Your task to perform on an android device: Go to Wikipedia Image 0: 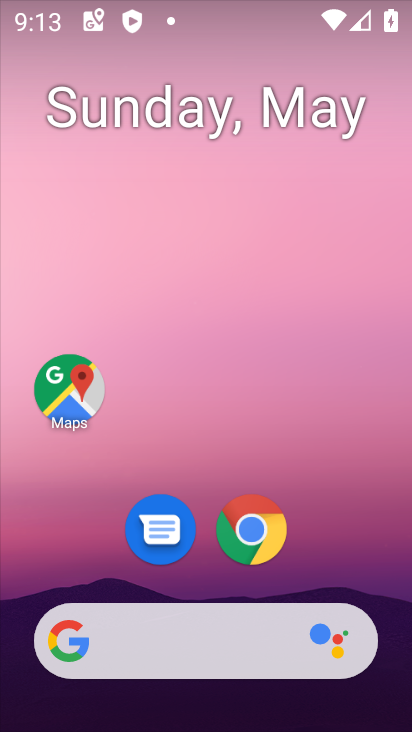
Step 0: task complete